Your task to perform on an android device: Open Chrome and go to settings Image 0: 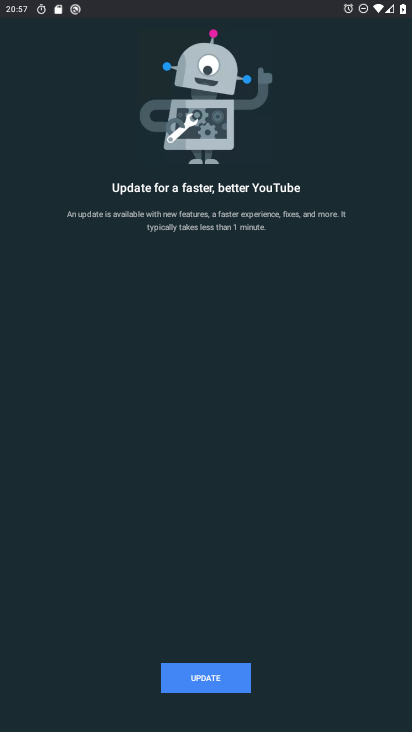
Step 0: press home button
Your task to perform on an android device: Open Chrome and go to settings Image 1: 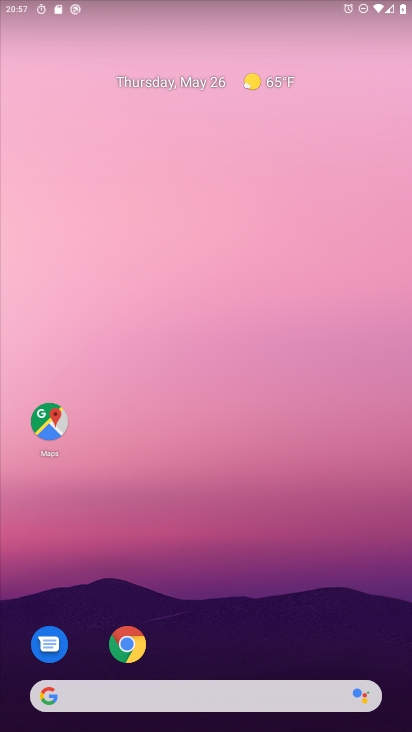
Step 1: drag from (254, 665) to (279, 99)
Your task to perform on an android device: Open Chrome and go to settings Image 2: 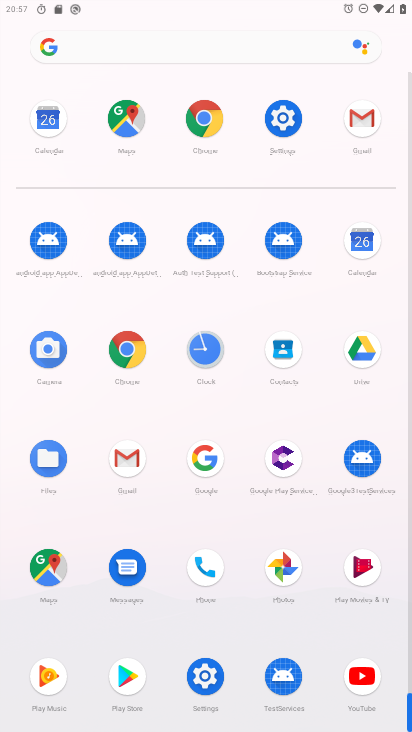
Step 2: drag from (249, 643) to (241, 215)
Your task to perform on an android device: Open Chrome and go to settings Image 3: 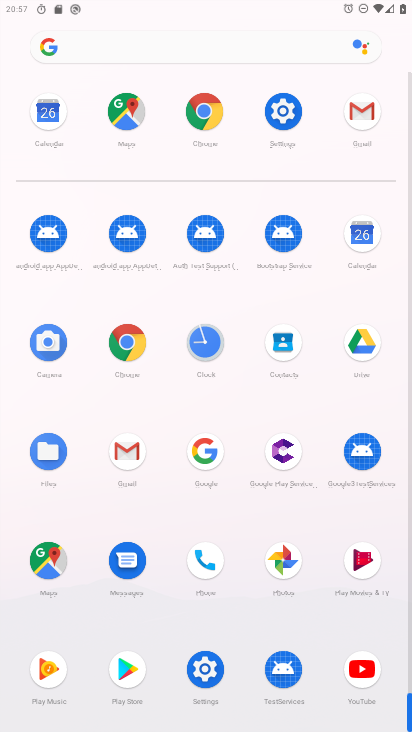
Step 3: click (126, 344)
Your task to perform on an android device: Open Chrome and go to settings Image 4: 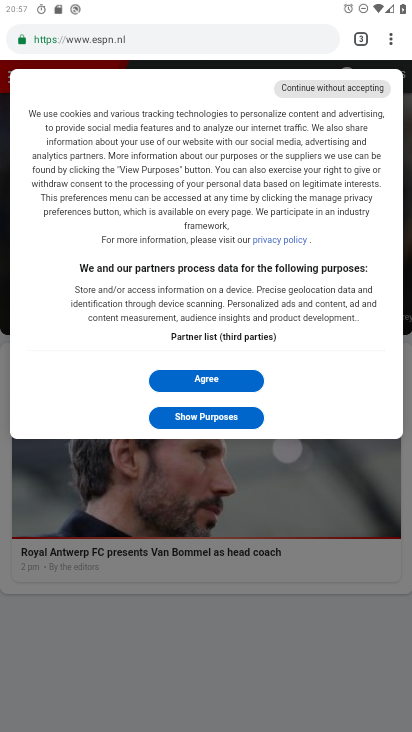
Step 4: task complete